Your task to perform on an android device: Go to accessibility settings Image 0: 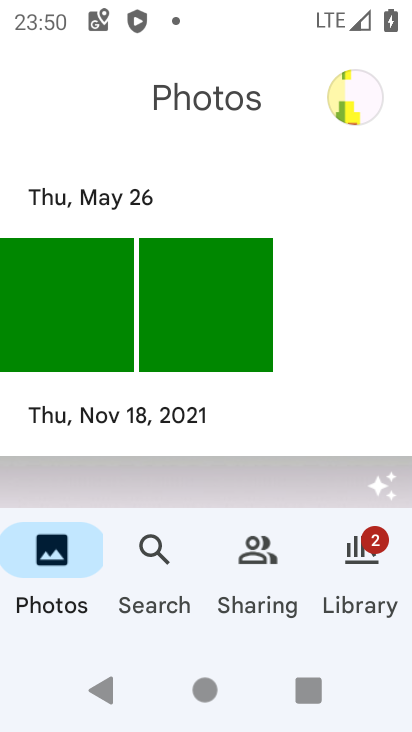
Step 0: press home button
Your task to perform on an android device: Go to accessibility settings Image 1: 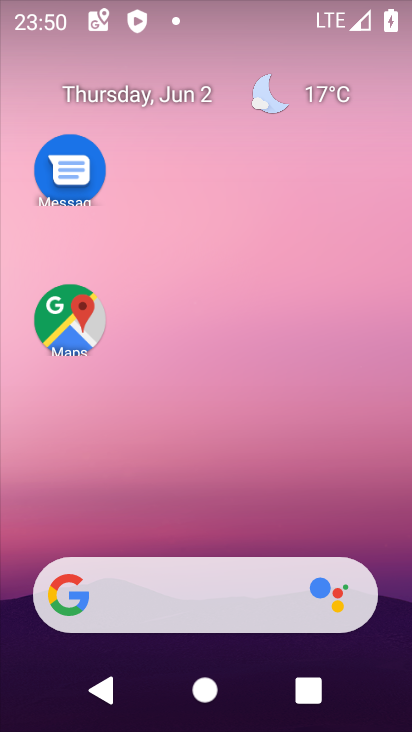
Step 1: drag from (353, 487) to (311, 103)
Your task to perform on an android device: Go to accessibility settings Image 2: 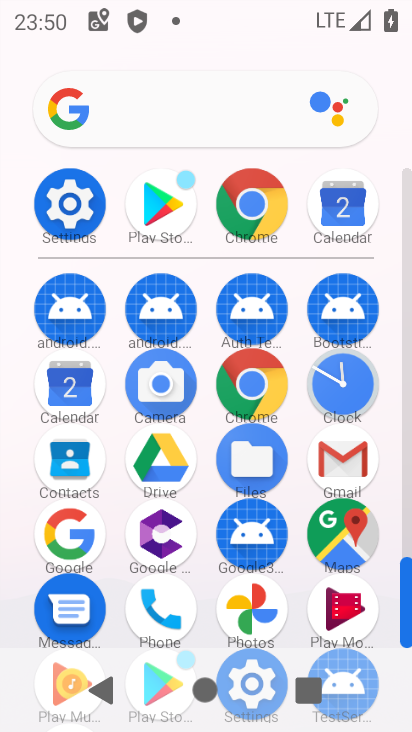
Step 2: click (84, 192)
Your task to perform on an android device: Go to accessibility settings Image 3: 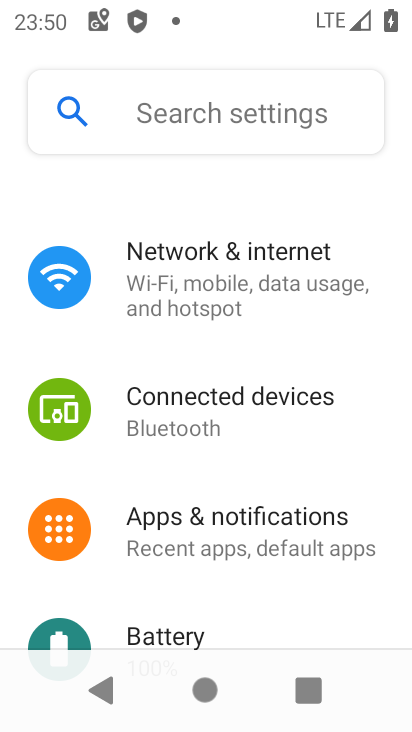
Step 3: drag from (354, 533) to (306, 140)
Your task to perform on an android device: Go to accessibility settings Image 4: 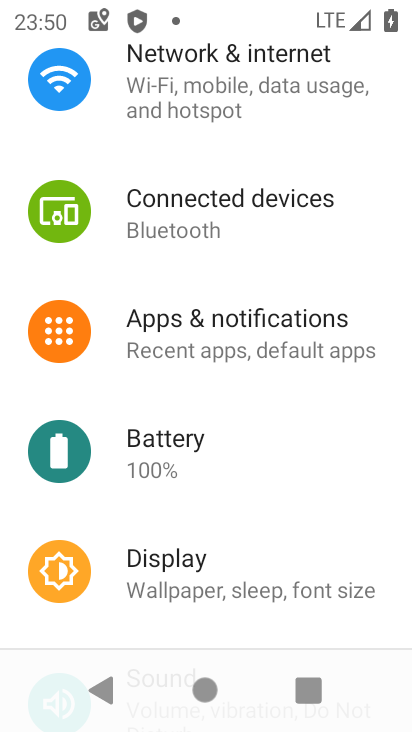
Step 4: drag from (334, 556) to (298, 335)
Your task to perform on an android device: Go to accessibility settings Image 5: 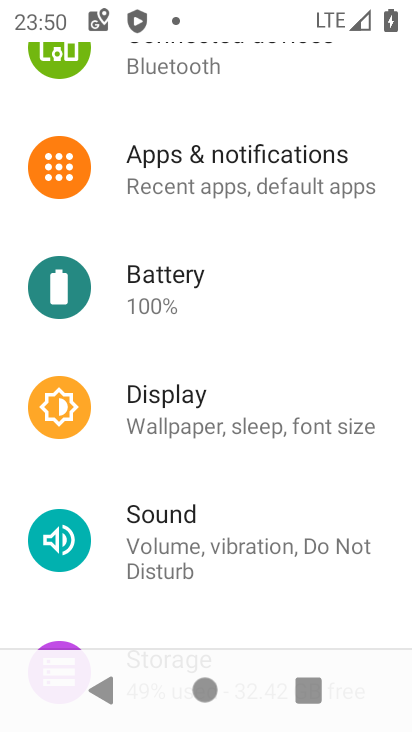
Step 5: drag from (234, 534) to (182, 323)
Your task to perform on an android device: Go to accessibility settings Image 6: 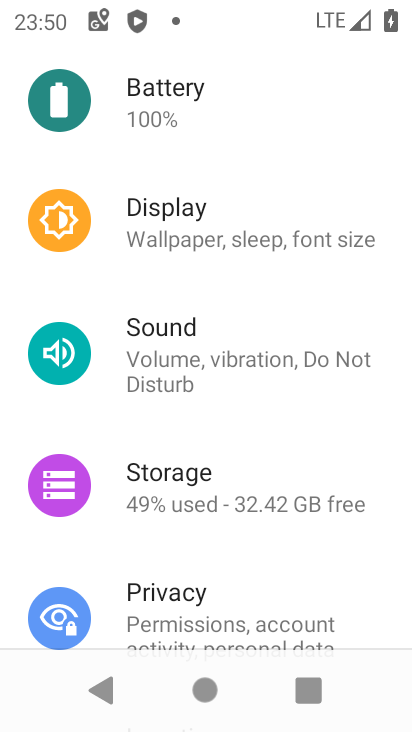
Step 6: drag from (229, 547) to (221, 330)
Your task to perform on an android device: Go to accessibility settings Image 7: 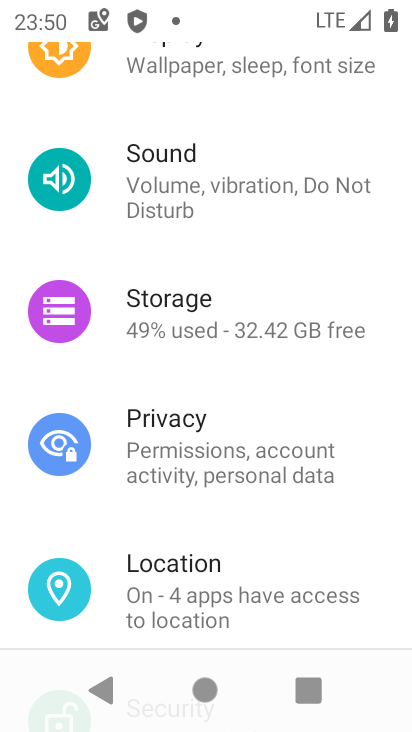
Step 7: drag from (236, 551) to (254, 307)
Your task to perform on an android device: Go to accessibility settings Image 8: 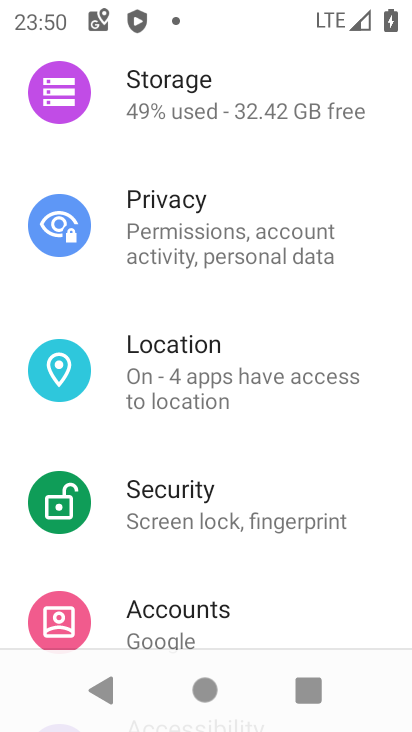
Step 8: drag from (314, 572) to (348, 211)
Your task to perform on an android device: Go to accessibility settings Image 9: 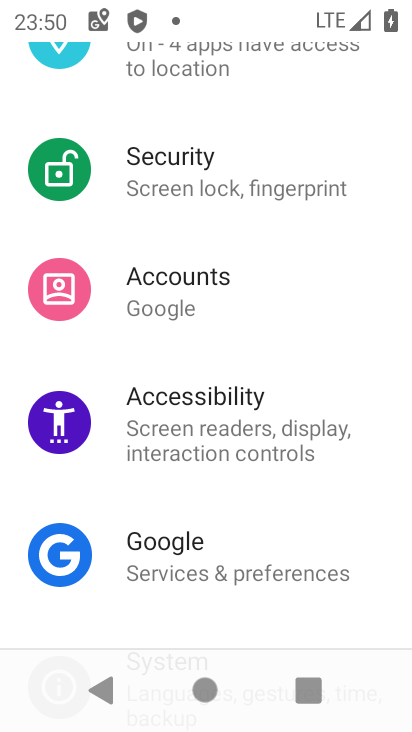
Step 9: drag from (401, 485) to (317, 292)
Your task to perform on an android device: Go to accessibility settings Image 10: 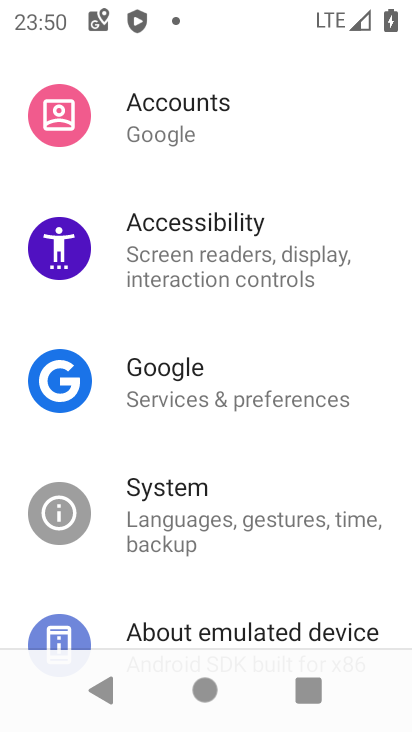
Step 10: drag from (262, 535) to (219, 287)
Your task to perform on an android device: Go to accessibility settings Image 11: 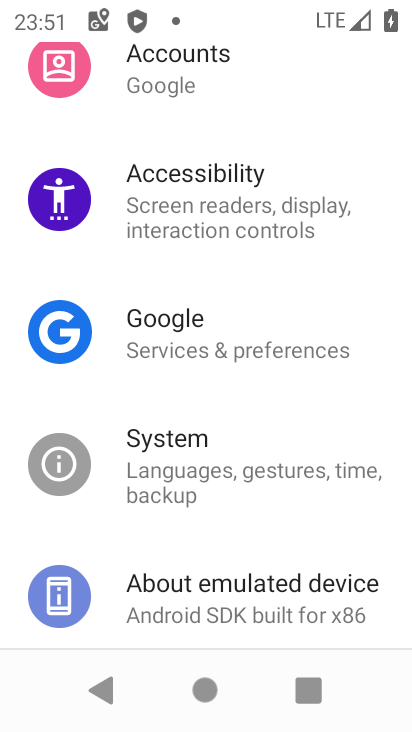
Step 11: drag from (264, 458) to (213, 259)
Your task to perform on an android device: Go to accessibility settings Image 12: 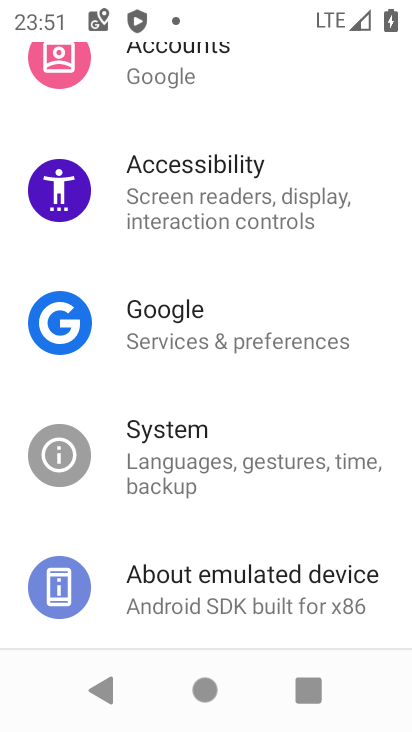
Step 12: drag from (292, 281) to (323, 730)
Your task to perform on an android device: Go to accessibility settings Image 13: 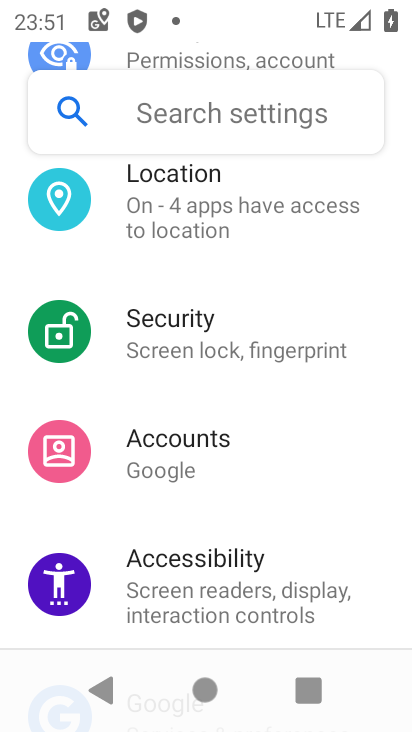
Step 13: click (284, 606)
Your task to perform on an android device: Go to accessibility settings Image 14: 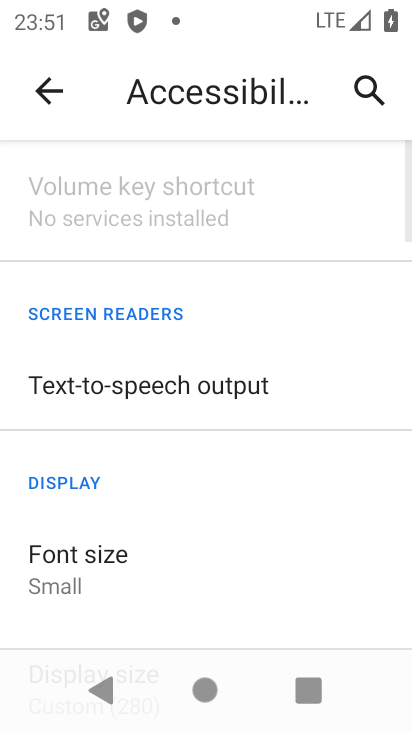
Step 14: task complete